Your task to perform on an android device: Open CNN.com Image 0: 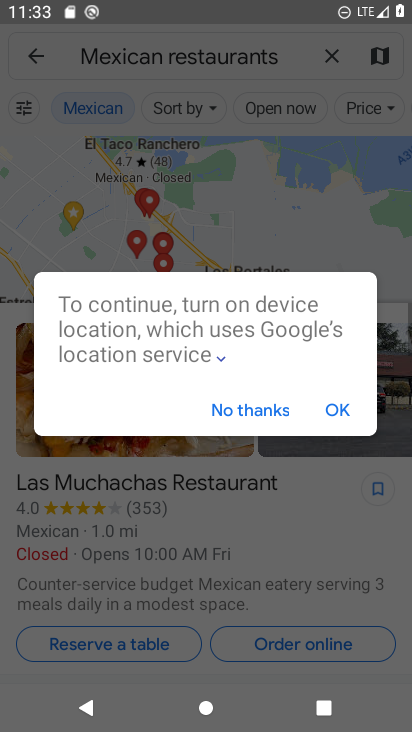
Step 0: press home button
Your task to perform on an android device: Open CNN.com Image 1: 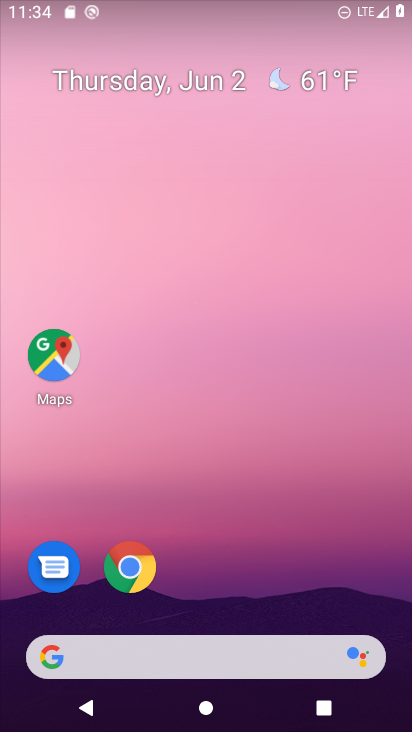
Step 1: click (136, 570)
Your task to perform on an android device: Open CNN.com Image 2: 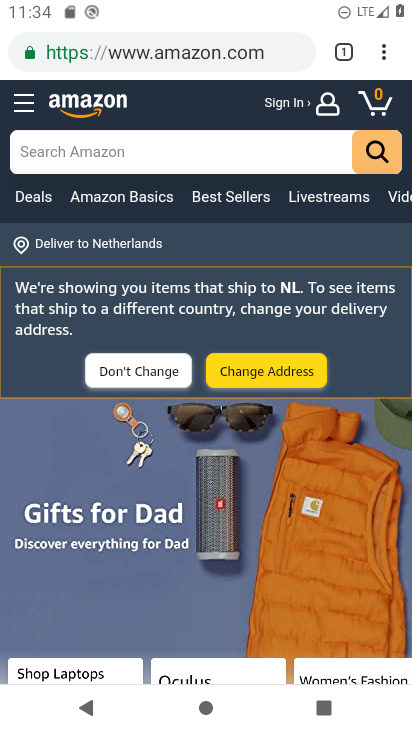
Step 2: click (238, 63)
Your task to perform on an android device: Open CNN.com Image 3: 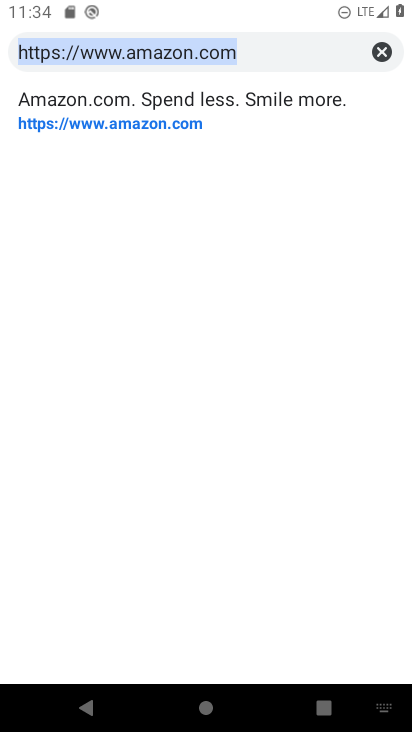
Step 3: type "cnn.com"
Your task to perform on an android device: Open CNN.com Image 4: 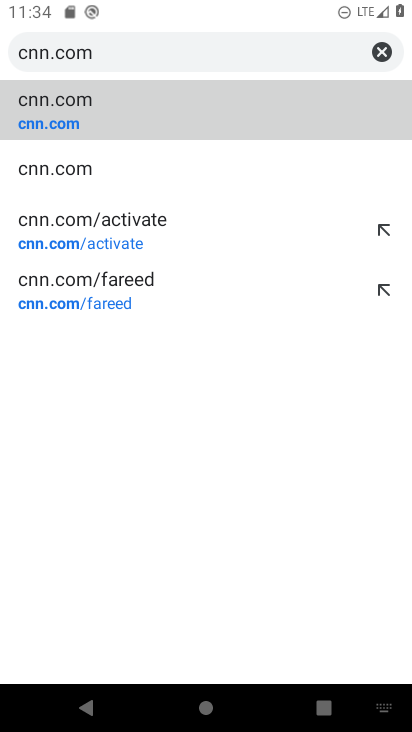
Step 4: click (76, 118)
Your task to perform on an android device: Open CNN.com Image 5: 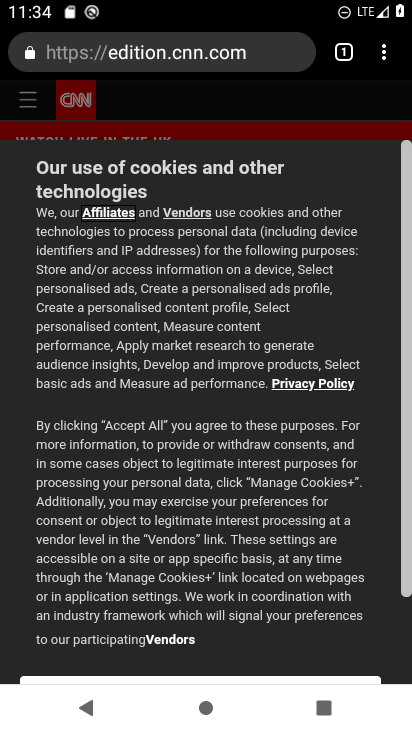
Step 5: task complete